Your task to perform on an android device: turn off sleep mode Image 0: 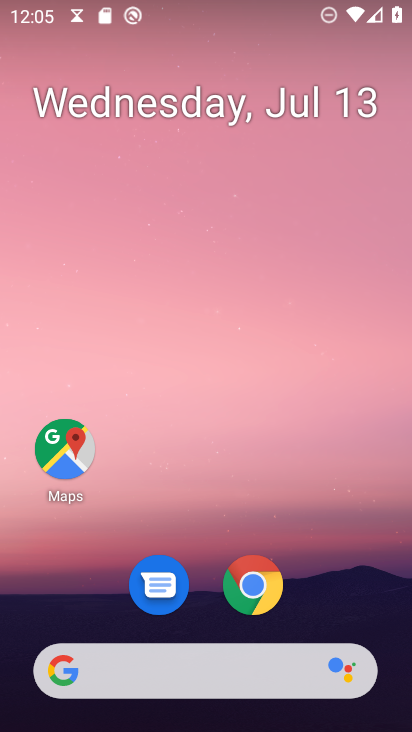
Step 0: drag from (223, 676) to (345, 90)
Your task to perform on an android device: turn off sleep mode Image 1: 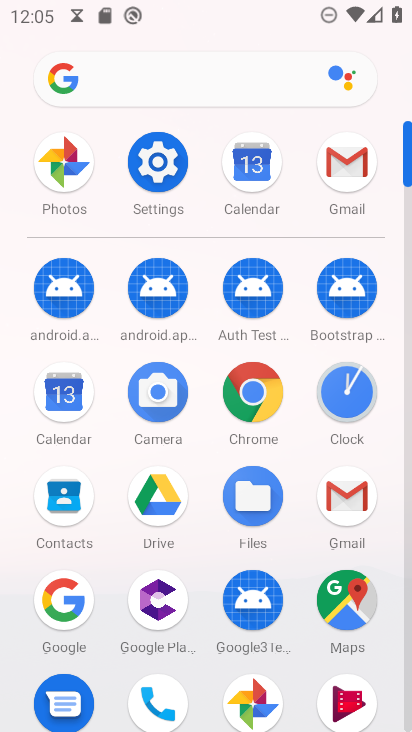
Step 1: click (151, 163)
Your task to perform on an android device: turn off sleep mode Image 2: 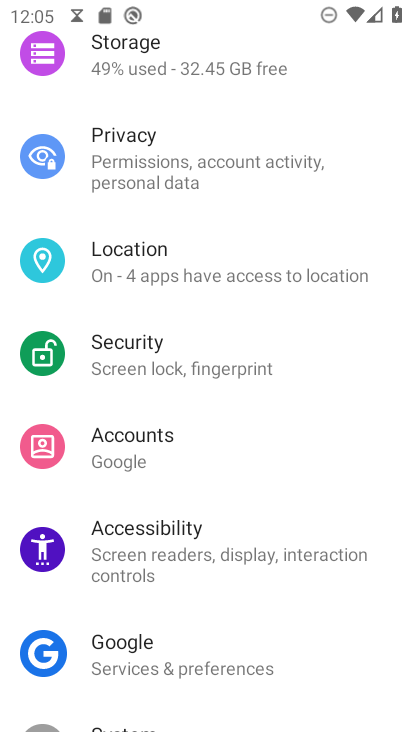
Step 2: drag from (275, 134) to (211, 596)
Your task to perform on an android device: turn off sleep mode Image 3: 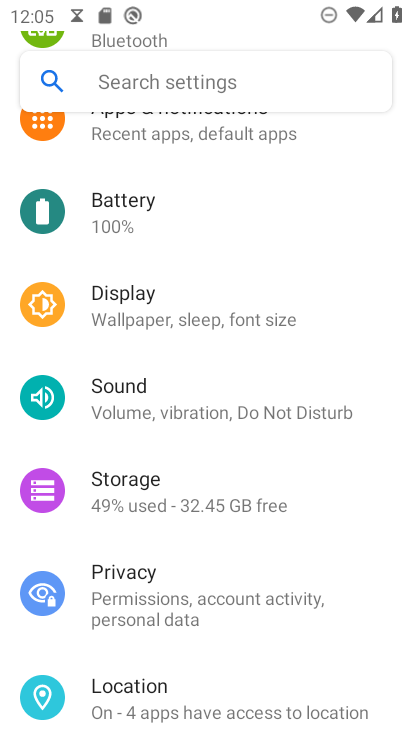
Step 3: drag from (214, 174) to (205, 556)
Your task to perform on an android device: turn off sleep mode Image 4: 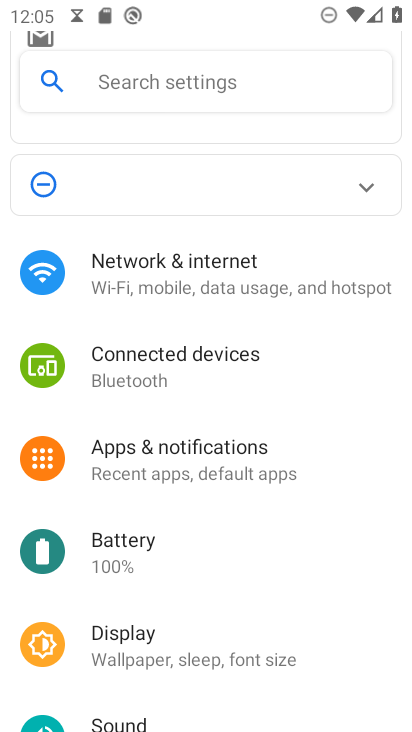
Step 4: drag from (204, 581) to (305, 283)
Your task to perform on an android device: turn off sleep mode Image 5: 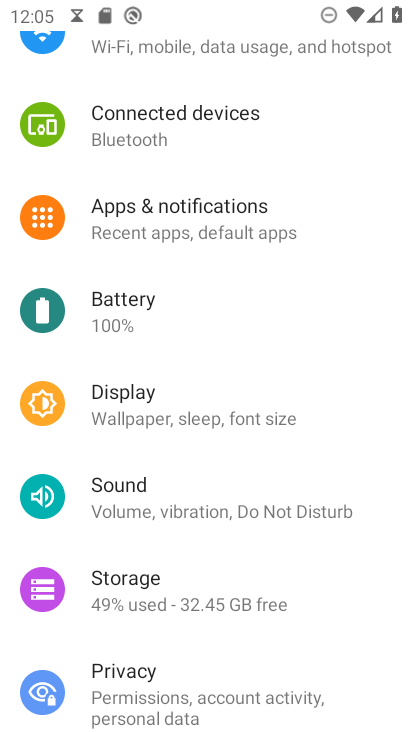
Step 5: click (191, 405)
Your task to perform on an android device: turn off sleep mode Image 6: 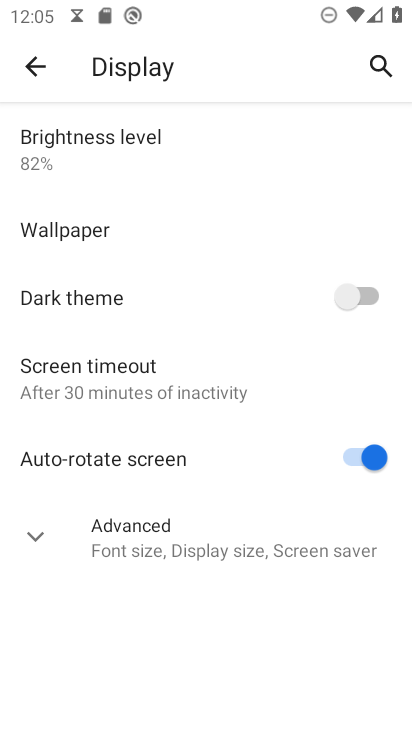
Step 6: click (125, 537)
Your task to perform on an android device: turn off sleep mode Image 7: 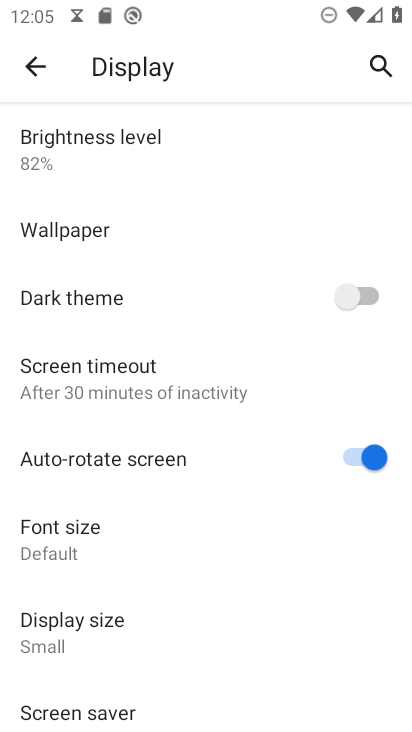
Step 7: task complete